Your task to perform on an android device: Open network settings Image 0: 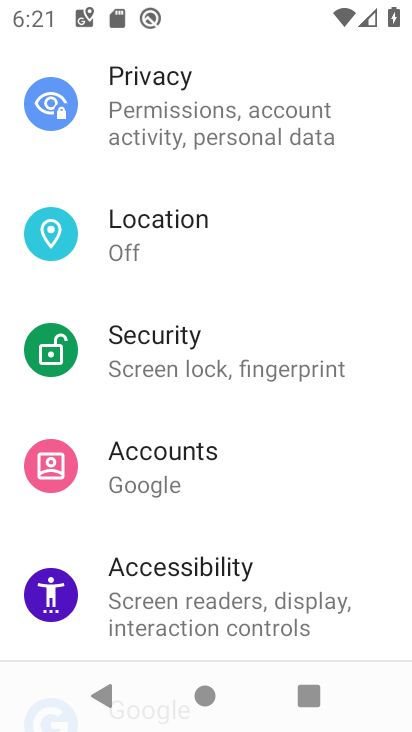
Step 0: drag from (180, 133) to (281, 729)
Your task to perform on an android device: Open network settings Image 1: 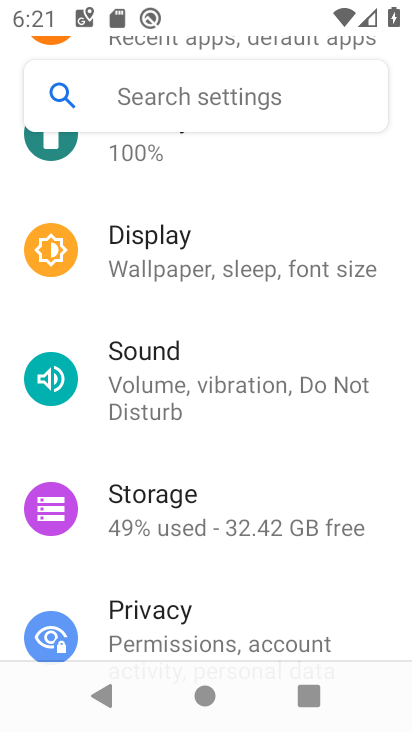
Step 1: drag from (248, 145) to (275, 727)
Your task to perform on an android device: Open network settings Image 2: 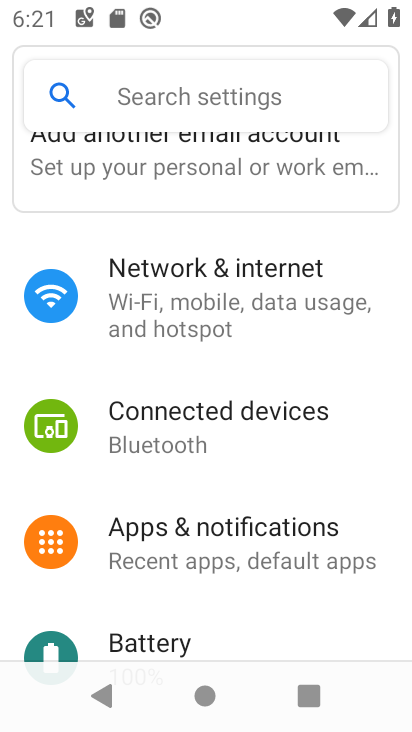
Step 2: click (245, 313)
Your task to perform on an android device: Open network settings Image 3: 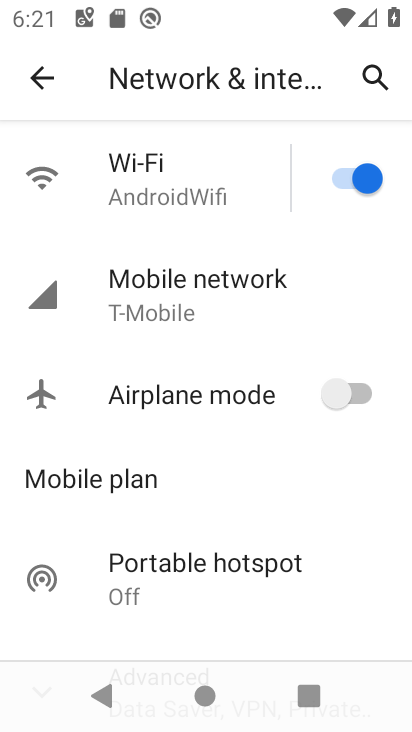
Step 3: drag from (162, 584) to (217, 127)
Your task to perform on an android device: Open network settings Image 4: 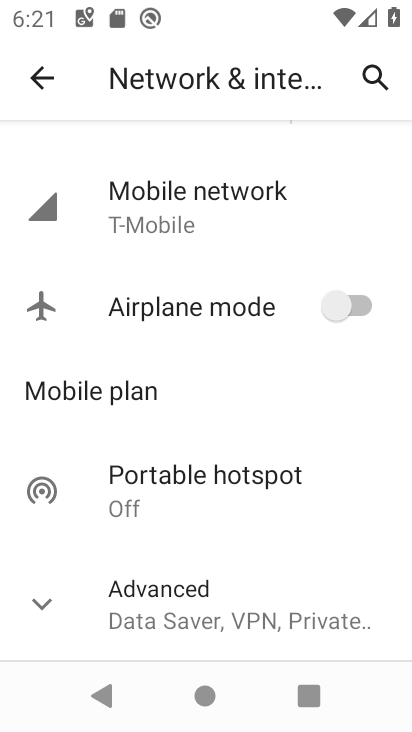
Step 4: click (78, 591)
Your task to perform on an android device: Open network settings Image 5: 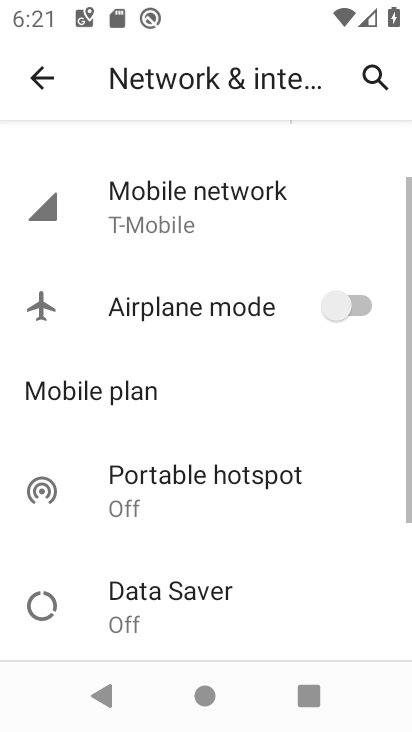
Step 5: task complete